Your task to perform on an android device: toggle pop-ups in chrome Image 0: 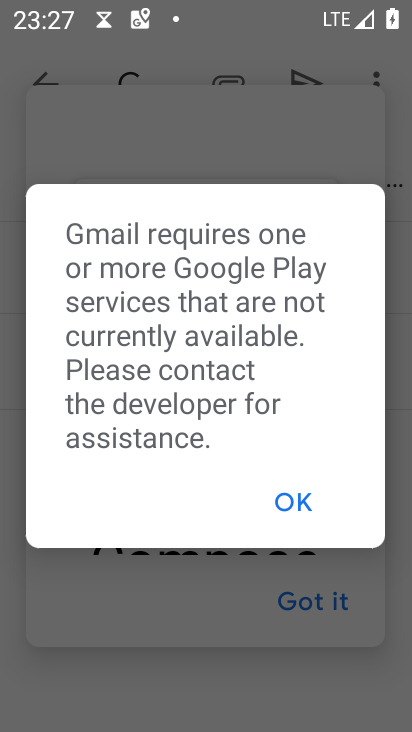
Step 0: press home button
Your task to perform on an android device: toggle pop-ups in chrome Image 1: 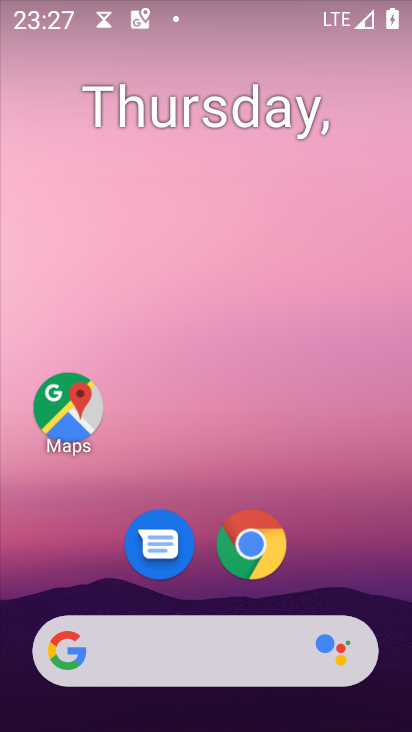
Step 1: click (262, 553)
Your task to perform on an android device: toggle pop-ups in chrome Image 2: 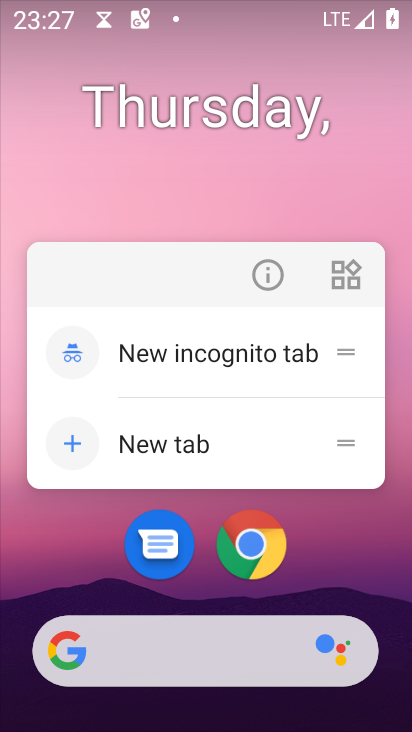
Step 2: click (271, 554)
Your task to perform on an android device: toggle pop-ups in chrome Image 3: 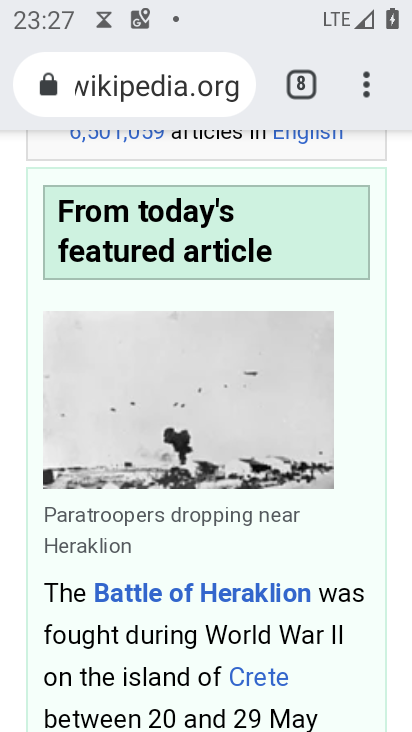
Step 3: click (365, 88)
Your task to perform on an android device: toggle pop-ups in chrome Image 4: 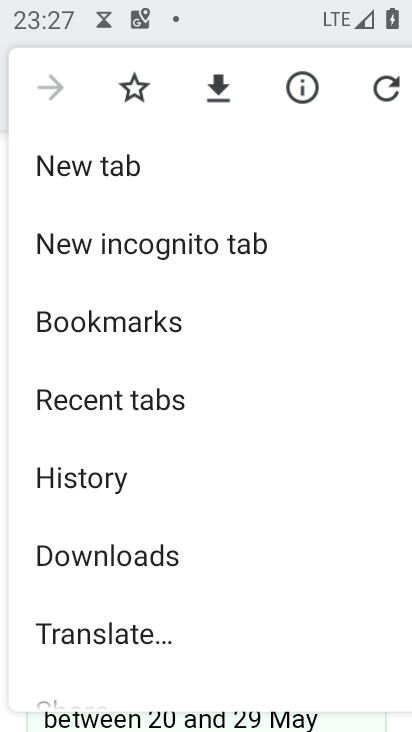
Step 4: drag from (159, 632) to (216, 326)
Your task to perform on an android device: toggle pop-ups in chrome Image 5: 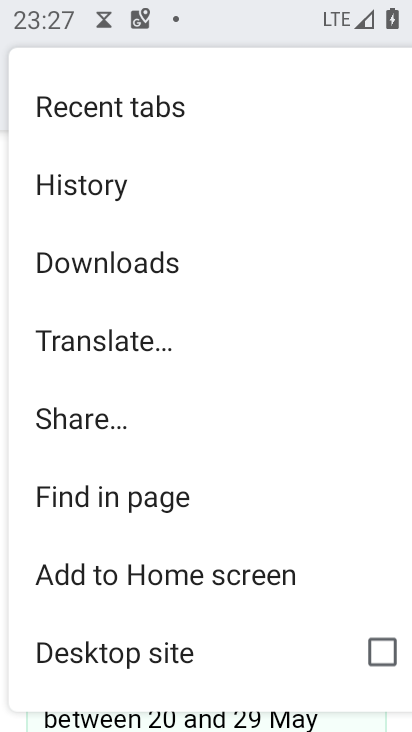
Step 5: drag from (141, 654) to (149, 379)
Your task to perform on an android device: toggle pop-ups in chrome Image 6: 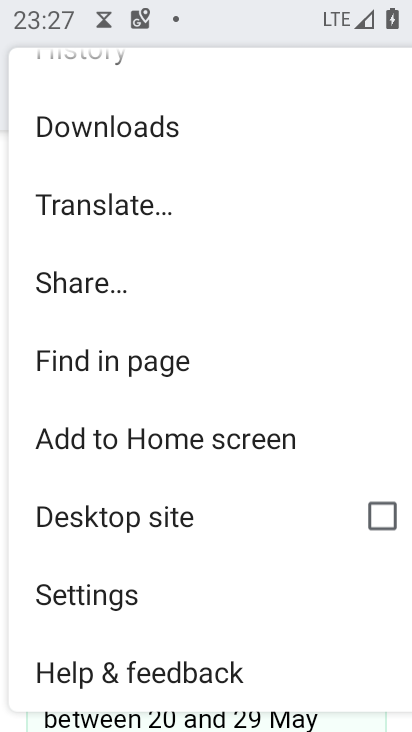
Step 6: click (103, 598)
Your task to perform on an android device: toggle pop-ups in chrome Image 7: 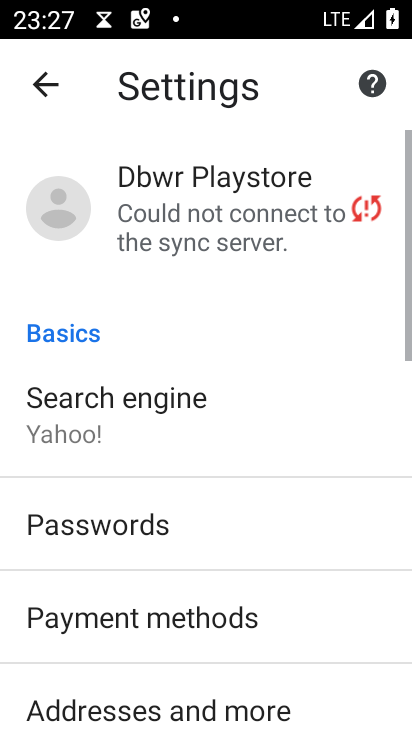
Step 7: drag from (174, 649) to (174, 220)
Your task to perform on an android device: toggle pop-ups in chrome Image 8: 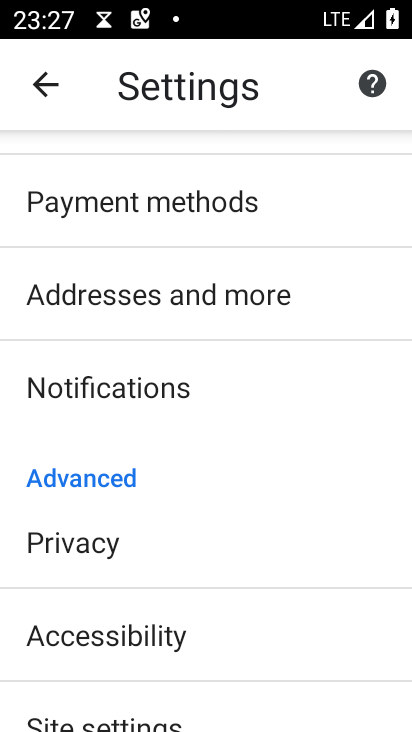
Step 8: click (100, 712)
Your task to perform on an android device: toggle pop-ups in chrome Image 9: 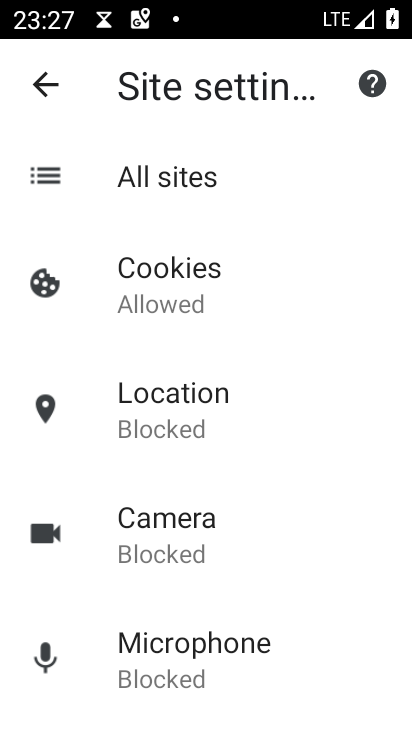
Step 9: drag from (232, 661) to (265, 224)
Your task to perform on an android device: toggle pop-ups in chrome Image 10: 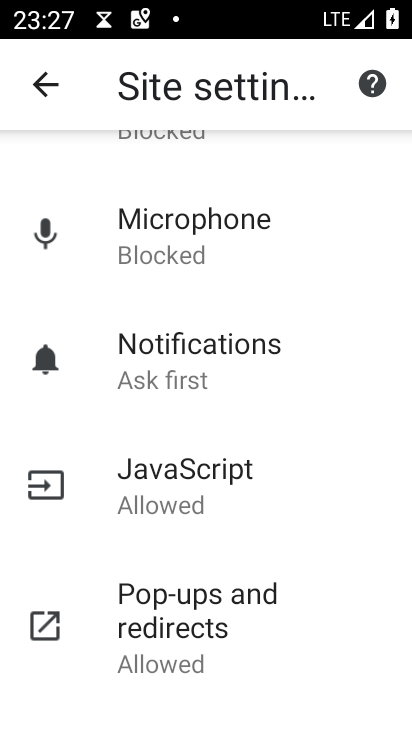
Step 10: click (175, 633)
Your task to perform on an android device: toggle pop-ups in chrome Image 11: 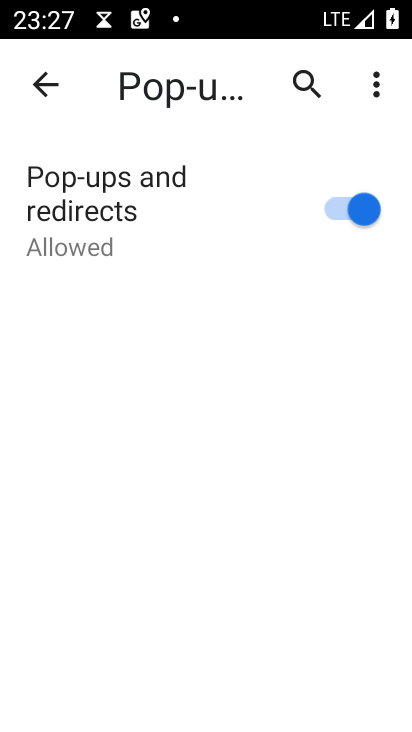
Step 11: click (354, 214)
Your task to perform on an android device: toggle pop-ups in chrome Image 12: 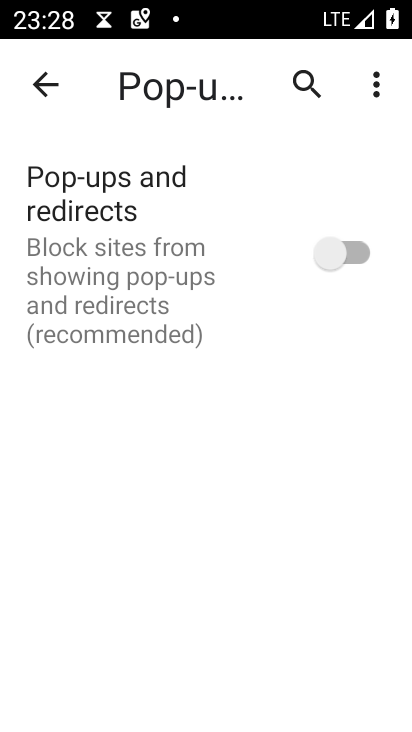
Step 12: task complete